Your task to perform on an android device: Add usb-c to usb-b to the cart on bestbuy.com, then select checkout. Image 0: 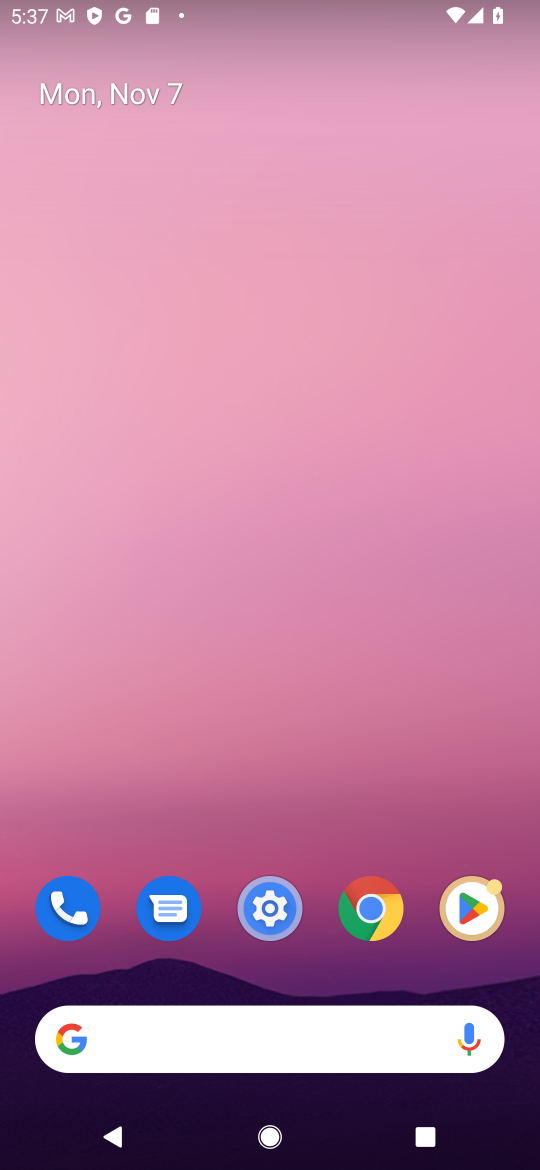
Step 0: click (248, 1049)
Your task to perform on an android device: Add usb-c to usb-b to the cart on bestbuy.com, then select checkout. Image 1: 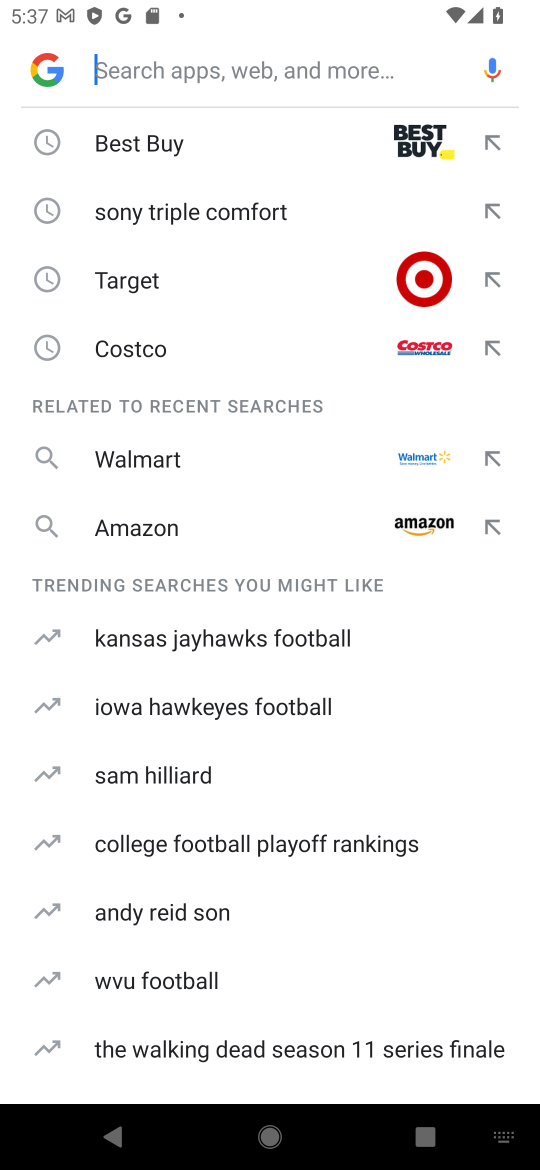
Step 1: click (146, 139)
Your task to perform on an android device: Add usb-c to usb-b to the cart on bestbuy.com, then select checkout. Image 2: 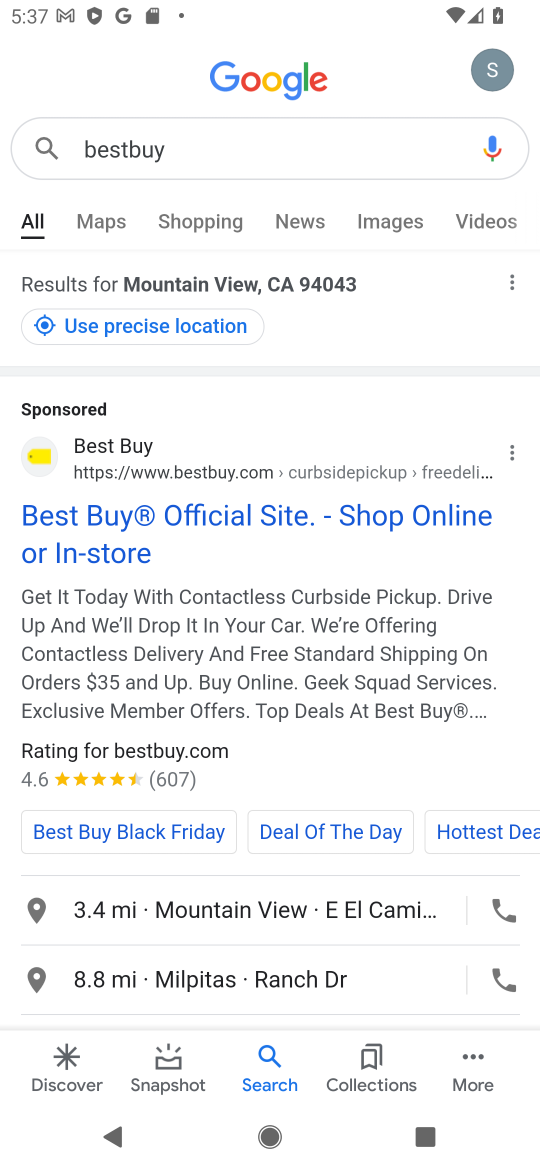
Step 2: click (204, 533)
Your task to perform on an android device: Add usb-c to usb-b to the cart on bestbuy.com, then select checkout. Image 3: 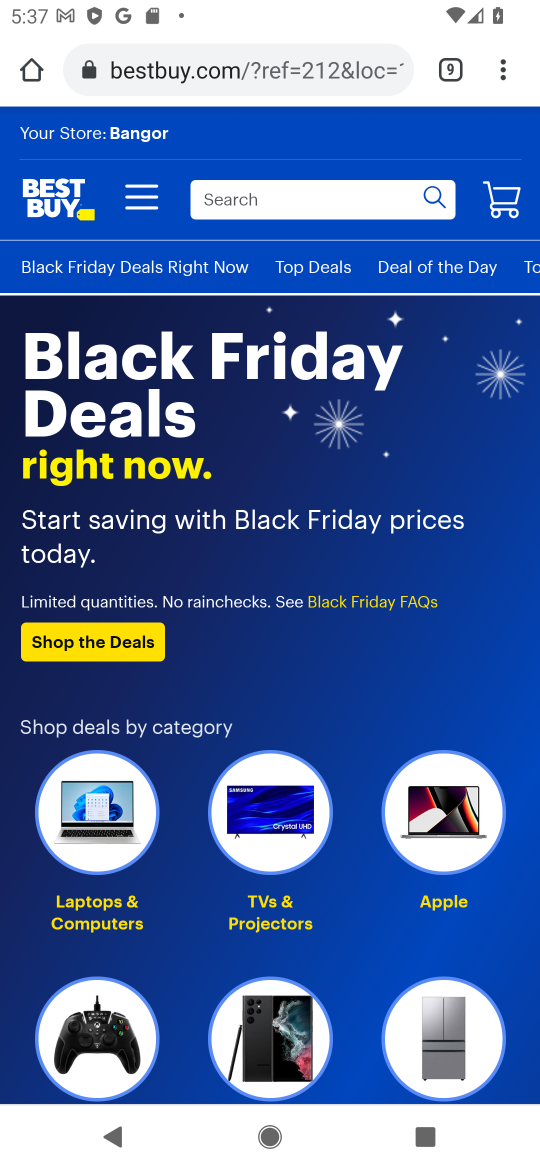
Step 3: click (276, 209)
Your task to perform on an android device: Add usb-c to usb-b to the cart on bestbuy.com, then select checkout. Image 4: 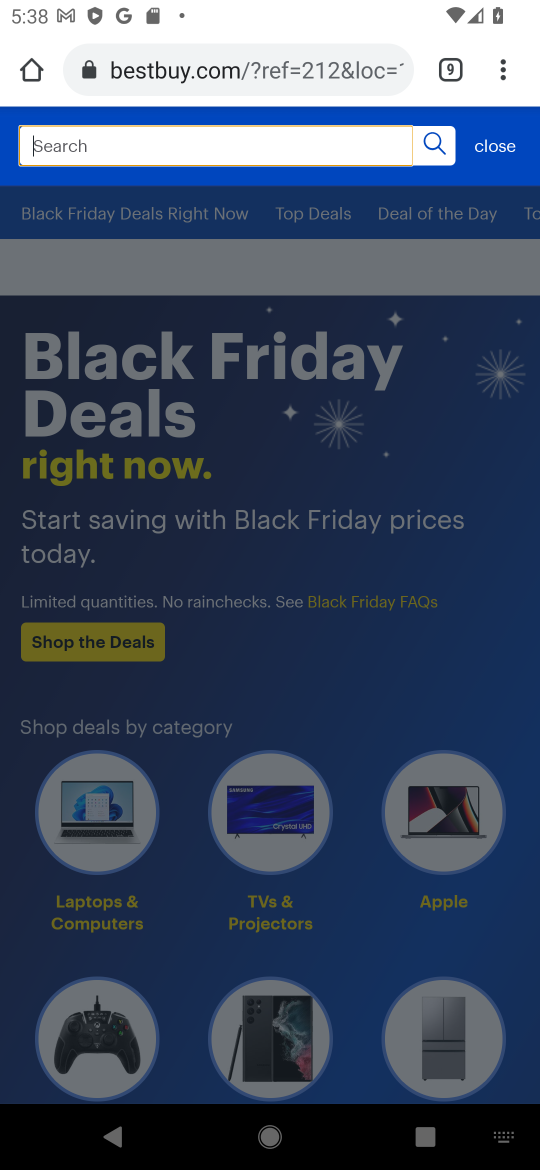
Step 4: type "usb-b to usb-b"
Your task to perform on an android device: Add usb-c to usb-b to the cart on bestbuy.com, then select checkout. Image 5: 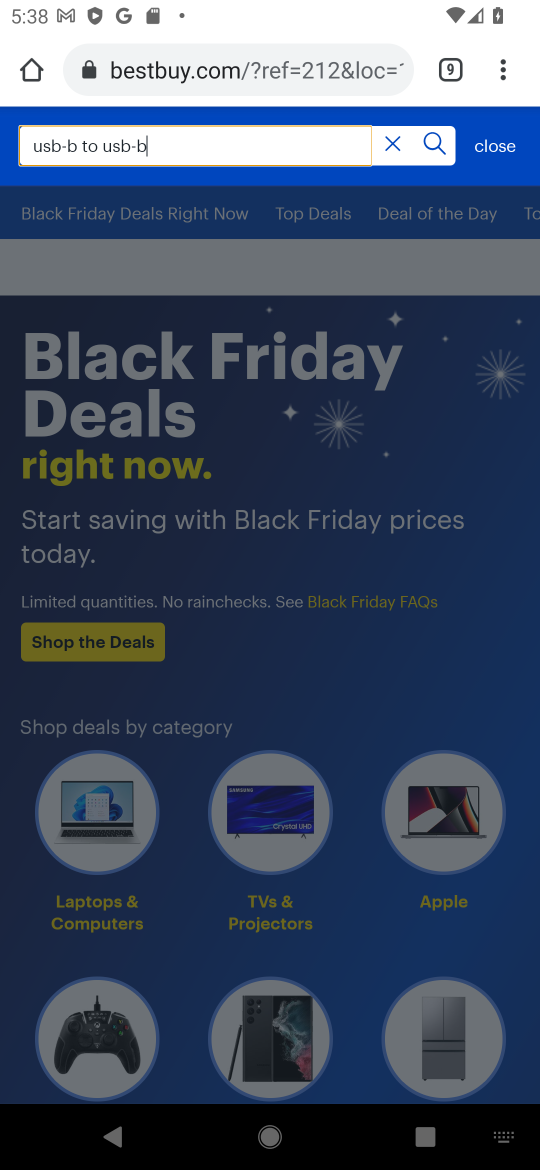
Step 5: click (427, 142)
Your task to perform on an android device: Add usb-c to usb-b to the cart on bestbuy.com, then select checkout. Image 6: 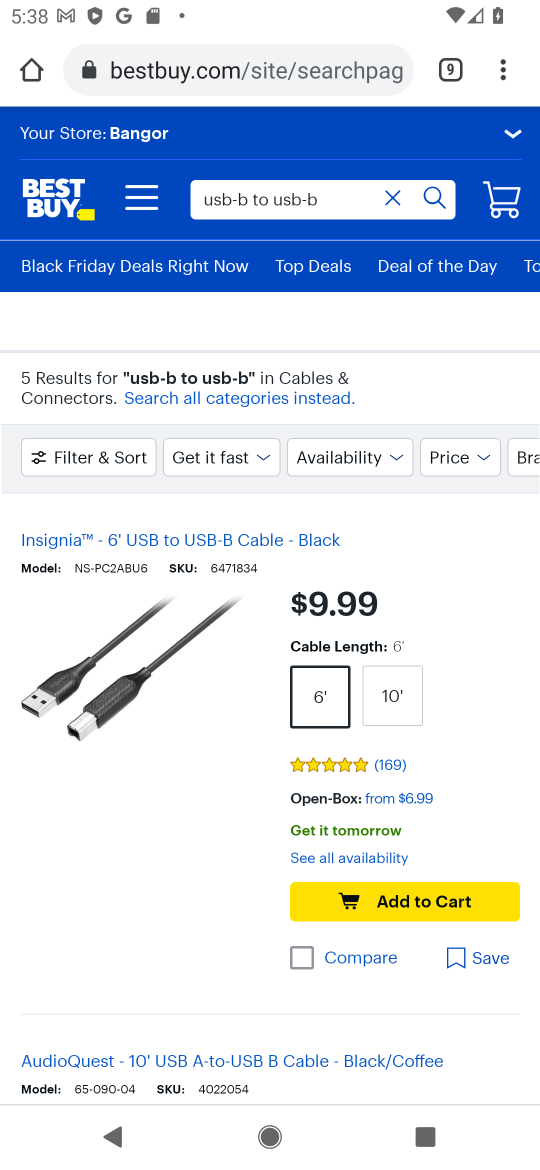
Step 6: click (377, 912)
Your task to perform on an android device: Add usb-c to usb-b to the cart on bestbuy.com, then select checkout. Image 7: 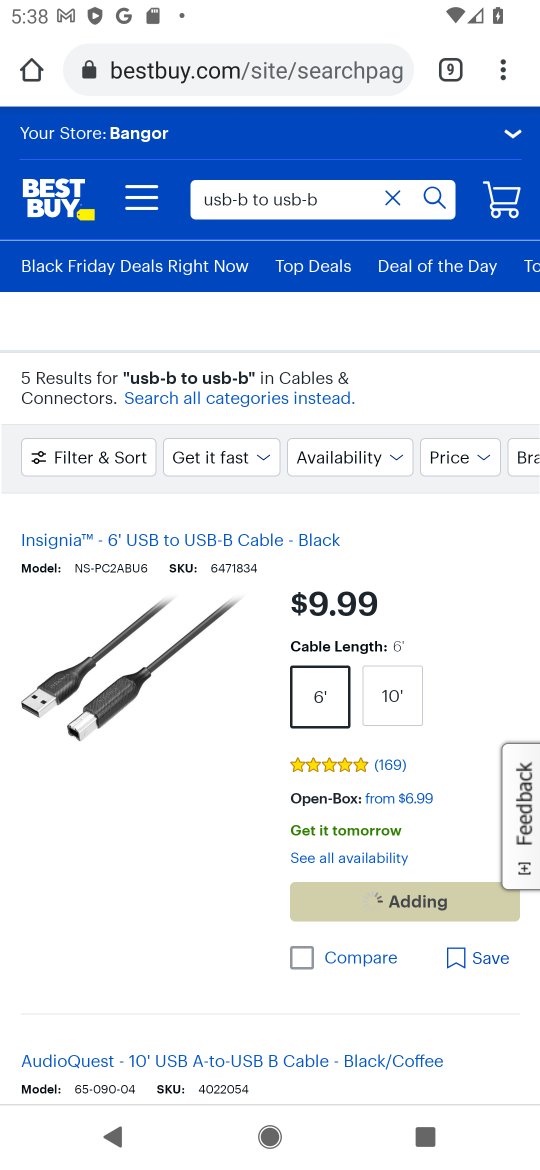
Step 7: task complete